Your task to perform on an android device: add a label to a message in the gmail app Image 0: 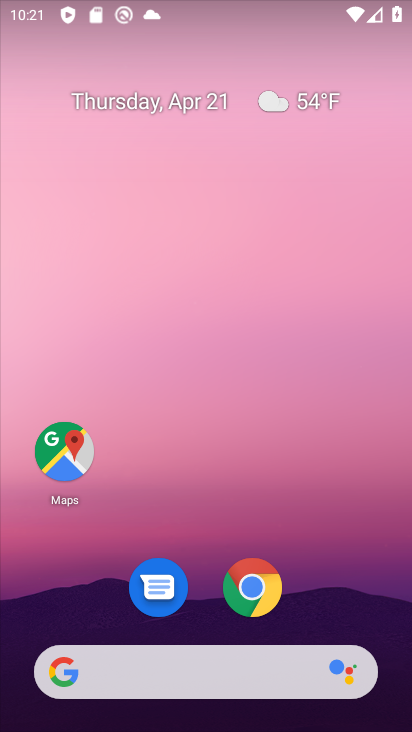
Step 0: drag from (185, 693) to (191, 149)
Your task to perform on an android device: add a label to a message in the gmail app Image 1: 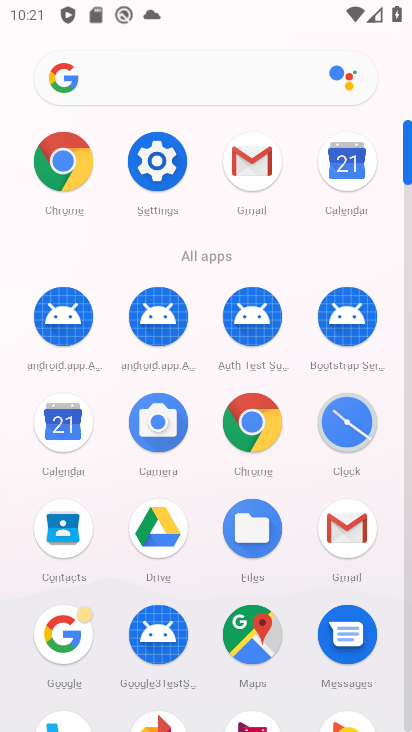
Step 1: click (336, 526)
Your task to perform on an android device: add a label to a message in the gmail app Image 2: 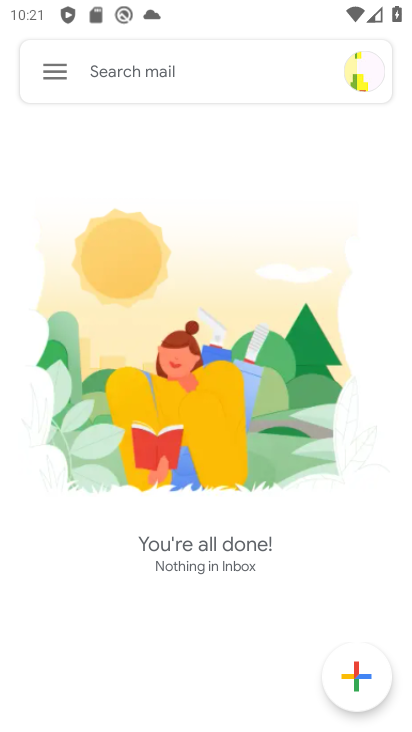
Step 2: click (49, 66)
Your task to perform on an android device: add a label to a message in the gmail app Image 3: 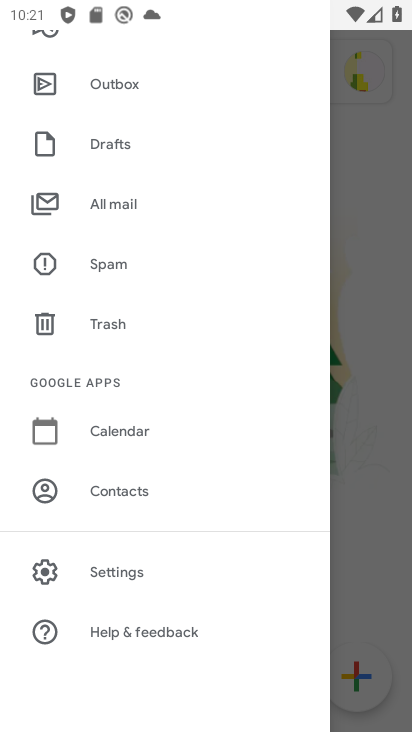
Step 3: click (104, 207)
Your task to perform on an android device: add a label to a message in the gmail app Image 4: 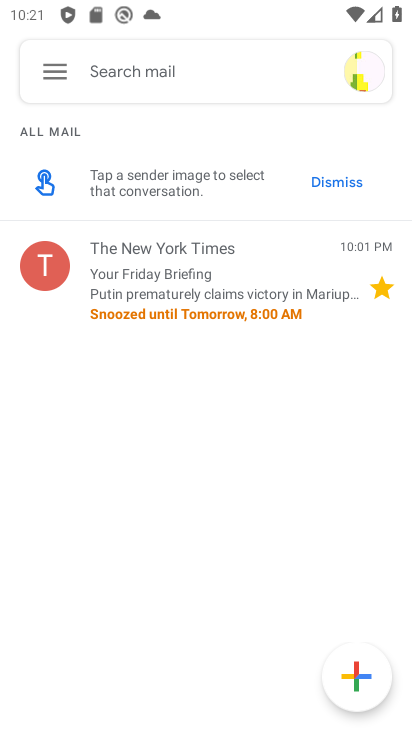
Step 4: click (43, 269)
Your task to perform on an android device: add a label to a message in the gmail app Image 5: 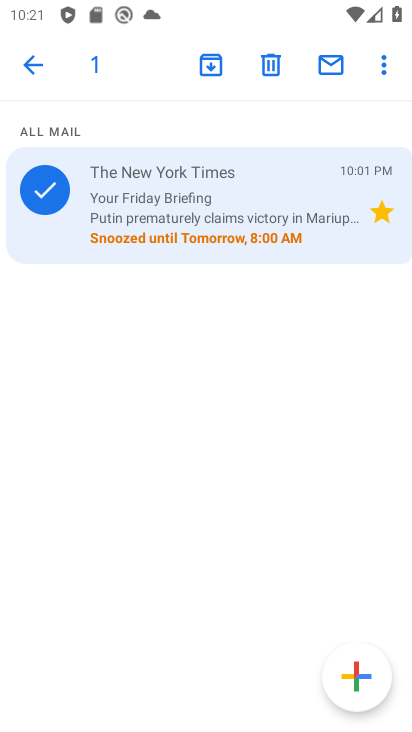
Step 5: click (382, 58)
Your task to perform on an android device: add a label to a message in the gmail app Image 6: 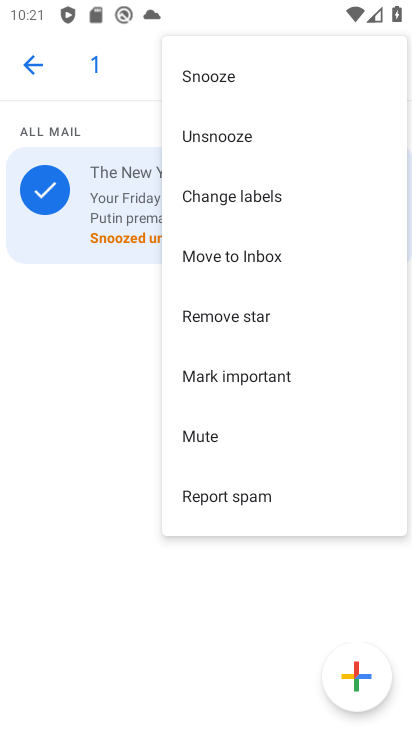
Step 6: click (252, 195)
Your task to perform on an android device: add a label to a message in the gmail app Image 7: 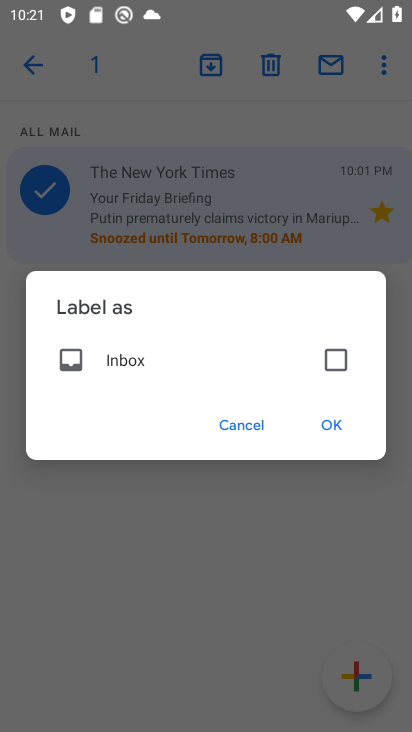
Step 7: click (331, 368)
Your task to perform on an android device: add a label to a message in the gmail app Image 8: 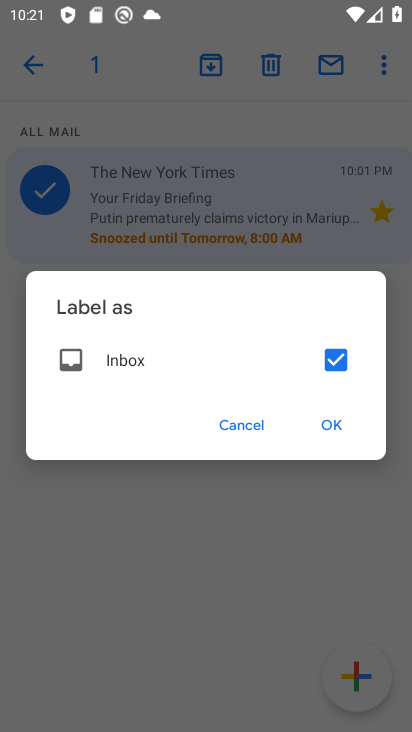
Step 8: click (339, 426)
Your task to perform on an android device: add a label to a message in the gmail app Image 9: 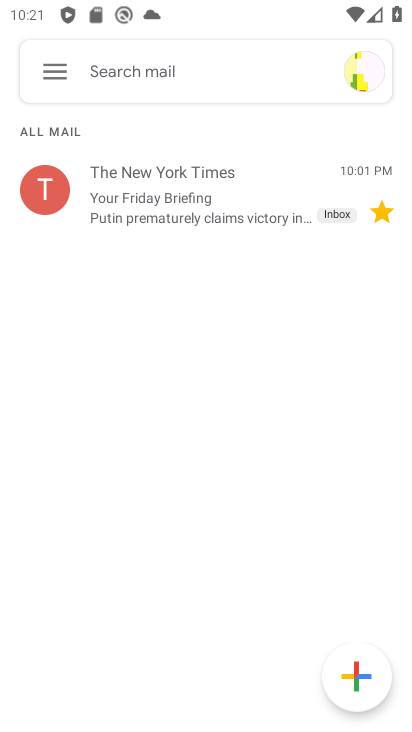
Step 9: task complete